Your task to perform on an android device: Toggle the flashlight Image 0: 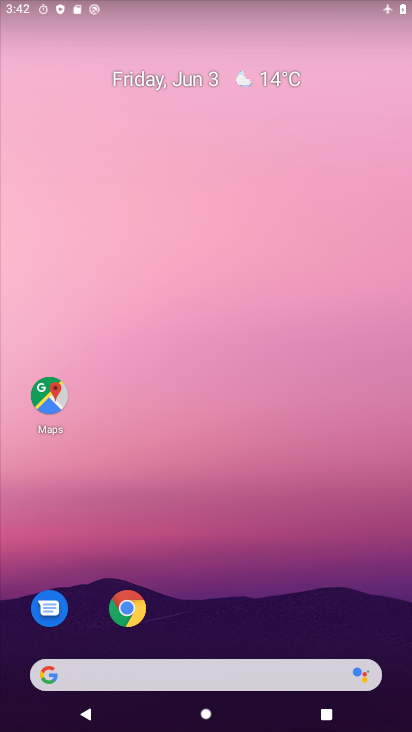
Step 0: drag from (284, 6) to (319, 431)
Your task to perform on an android device: Toggle the flashlight Image 1: 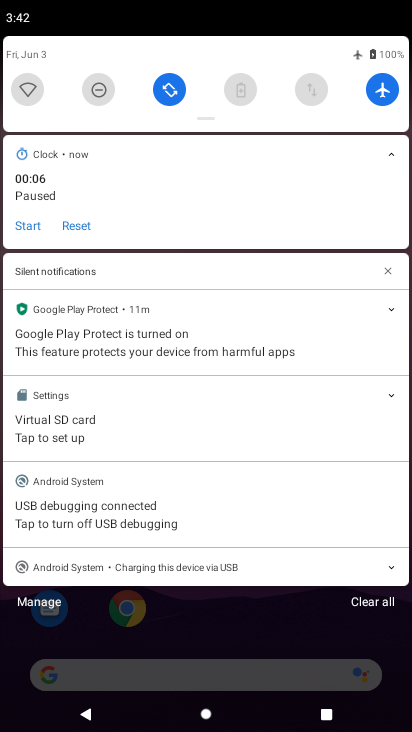
Step 1: drag from (119, 127) to (163, 443)
Your task to perform on an android device: Toggle the flashlight Image 2: 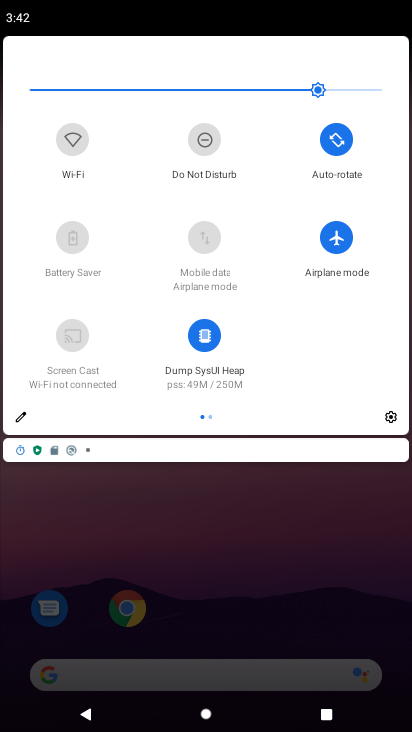
Step 2: click (13, 422)
Your task to perform on an android device: Toggle the flashlight Image 3: 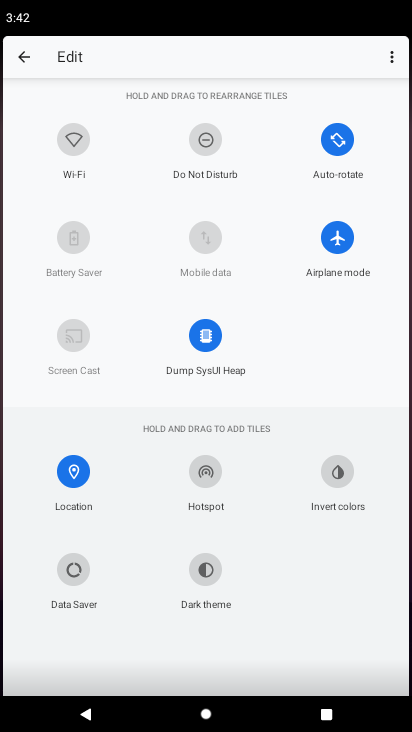
Step 3: task complete